Your task to perform on an android device: empty trash in the gmail app Image 0: 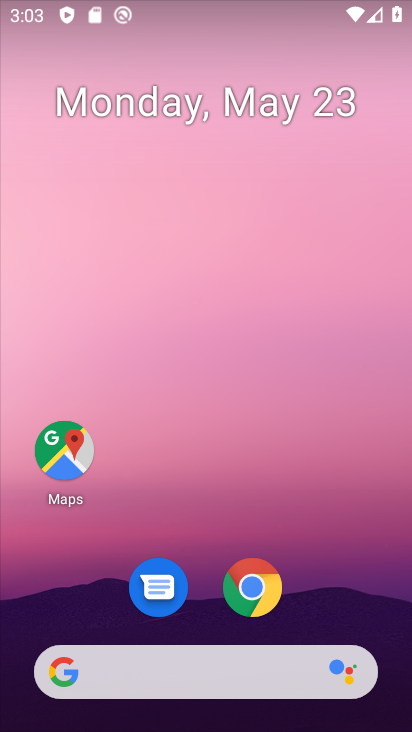
Step 0: drag from (206, 609) to (165, 13)
Your task to perform on an android device: empty trash in the gmail app Image 1: 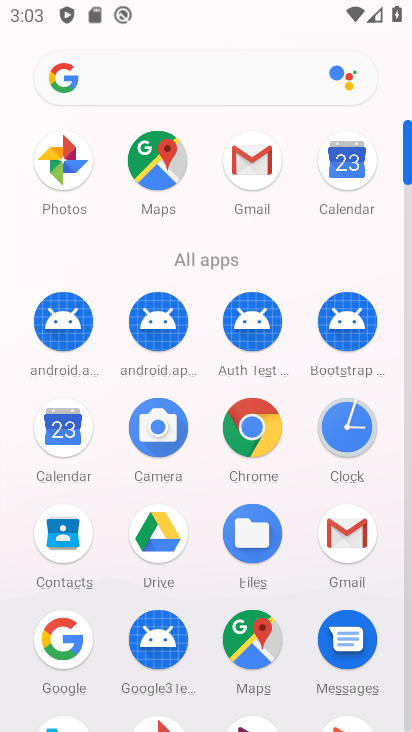
Step 1: click (350, 524)
Your task to perform on an android device: empty trash in the gmail app Image 2: 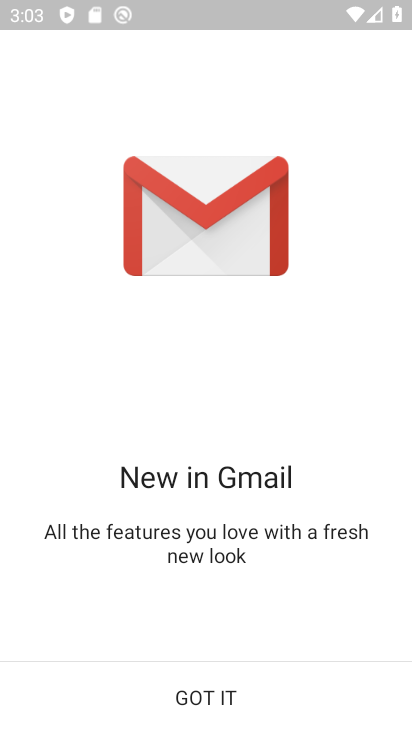
Step 2: click (206, 695)
Your task to perform on an android device: empty trash in the gmail app Image 3: 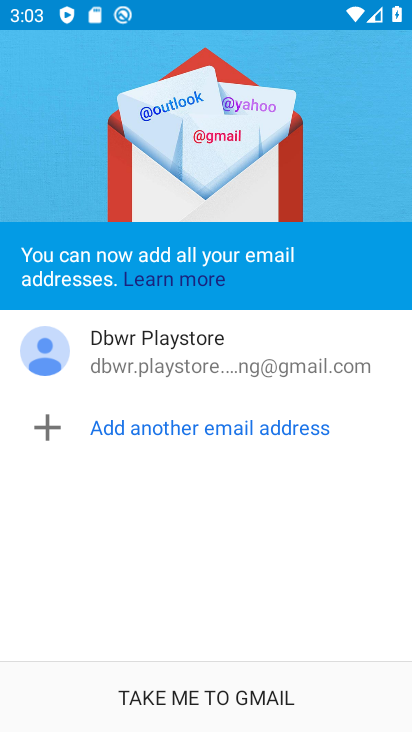
Step 3: click (198, 694)
Your task to perform on an android device: empty trash in the gmail app Image 4: 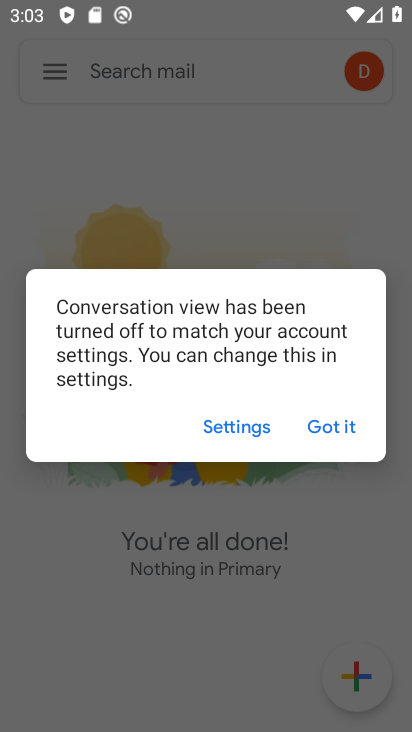
Step 4: click (341, 427)
Your task to perform on an android device: empty trash in the gmail app Image 5: 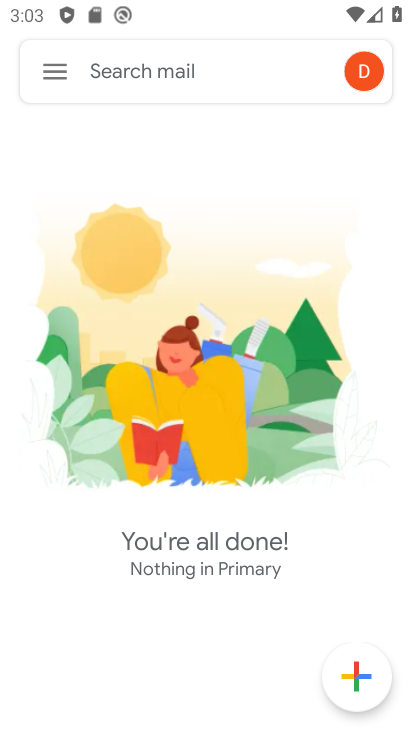
Step 5: click (50, 69)
Your task to perform on an android device: empty trash in the gmail app Image 6: 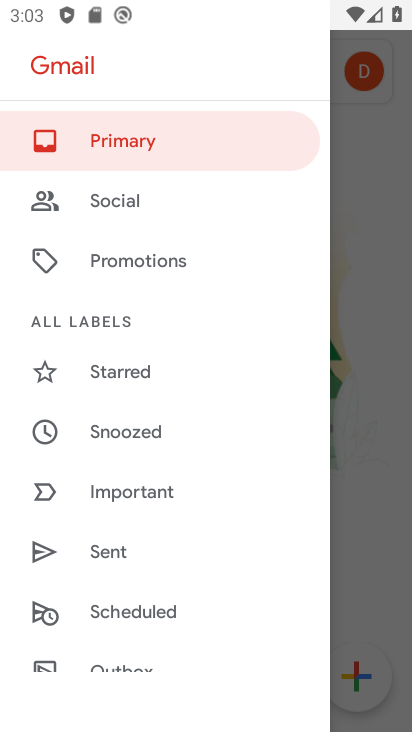
Step 6: drag from (142, 562) to (220, 177)
Your task to perform on an android device: empty trash in the gmail app Image 7: 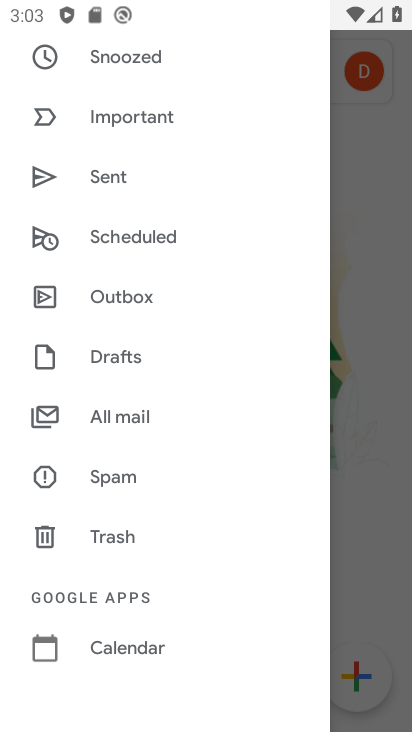
Step 7: click (136, 544)
Your task to perform on an android device: empty trash in the gmail app Image 8: 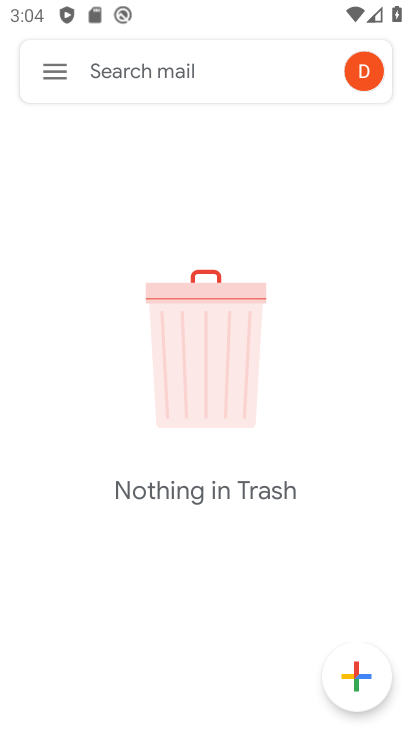
Step 8: task complete